Your task to perform on an android device: Open accessibility settings Image 0: 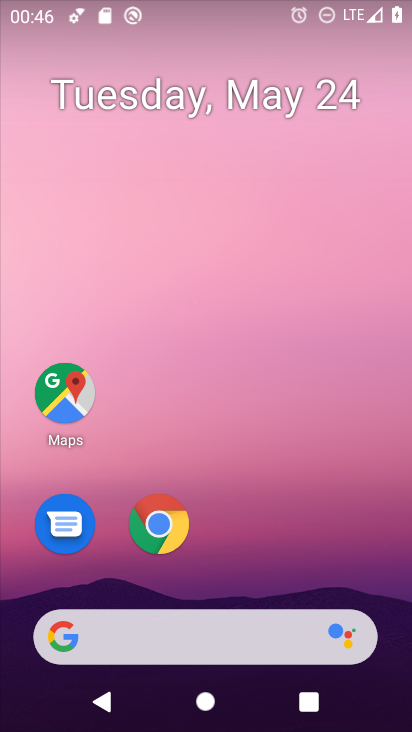
Step 0: drag from (252, 565) to (262, 120)
Your task to perform on an android device: Open accessibility settings Image 1: 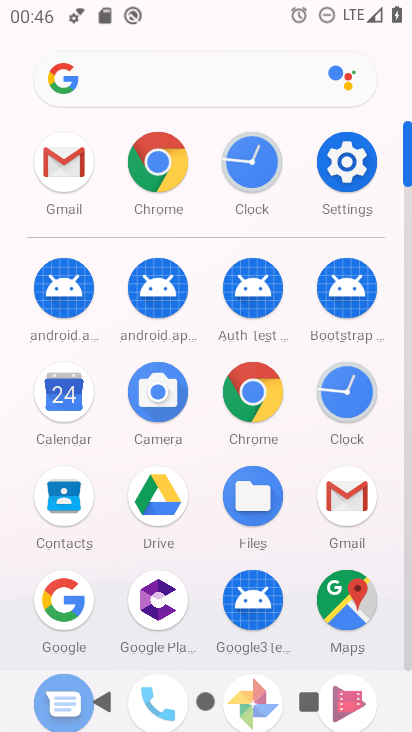
Step 1: click (348, 133)
Your task to perform on an android device: Open accessibility settings Image 2: 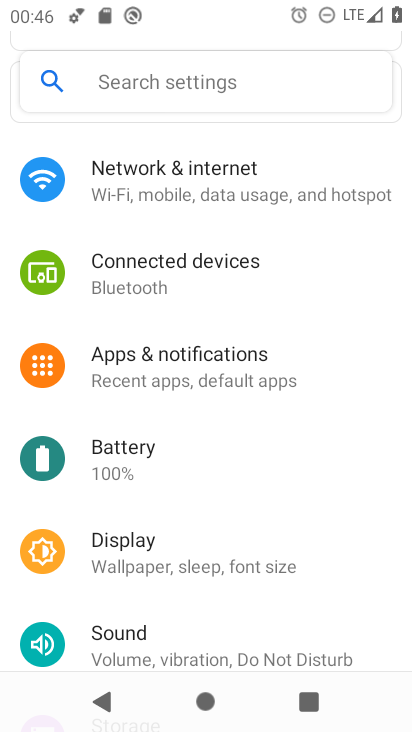
Step 2: drag from (209, 488) to (231, 295)
Your task to perform on an android device: Open accessibility settings Image 3: 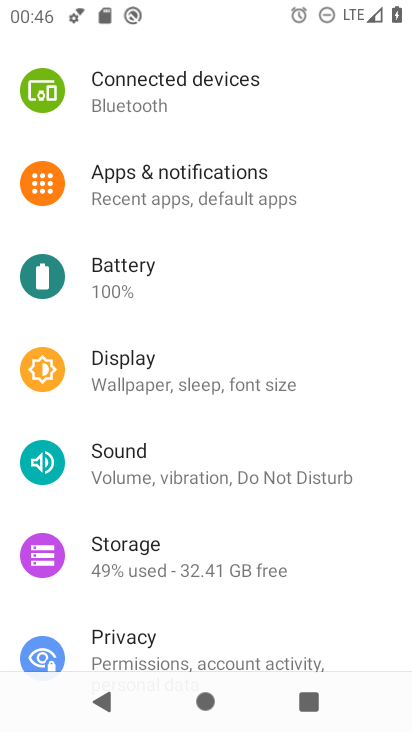
Step 3: drag from (204, 529) to (208, 232)
Your task to perform on an android device: Open accessibility settings Image 4: 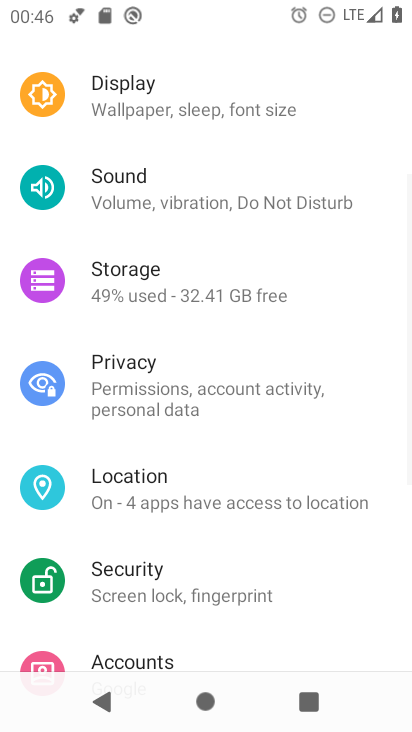
Step 4: drag from (208, 565) to (208, 234)
Your task to perform on an android device: Open accessibility settings Image 5: 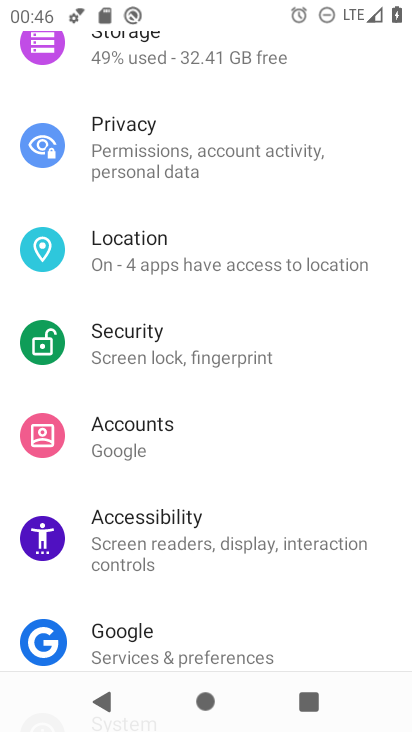
Step 5: click (210, 511)
Your task to perform on an android device: Open accessibility settings Image 6: 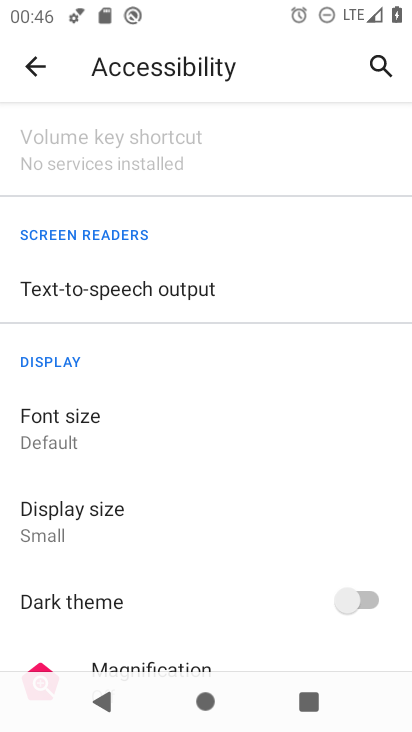
Step 6: task complete